Your task to perform on an android device: Open wifi settings Image 0: 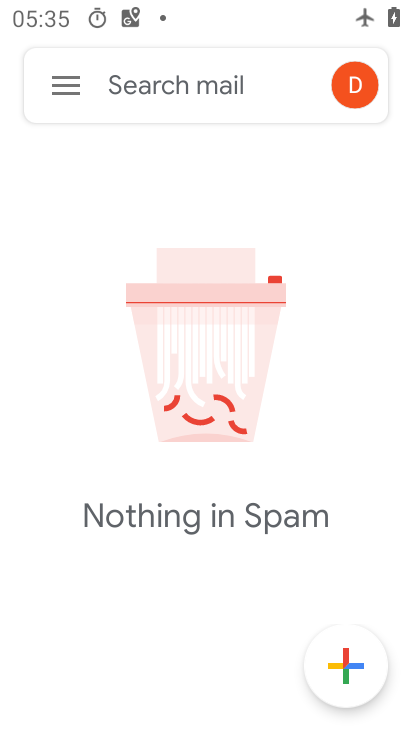
Step 0: press home button
Your task to perform on an android device: Open wifi settings Image 1: 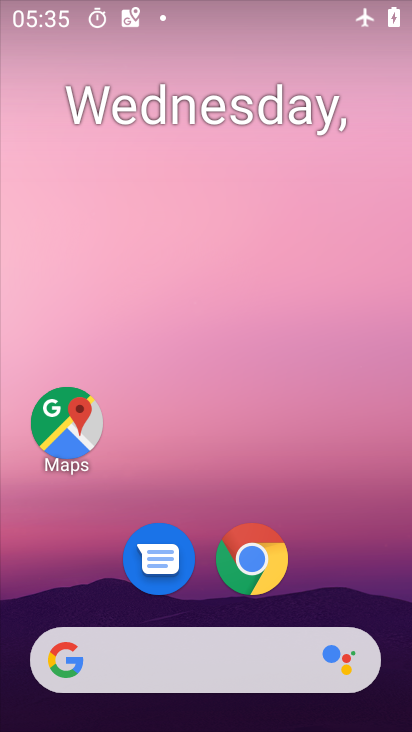
Step 1: drag from (339, 583) to (239, 110)
Your task to perform on an android device: Open wifi settings Image 2: 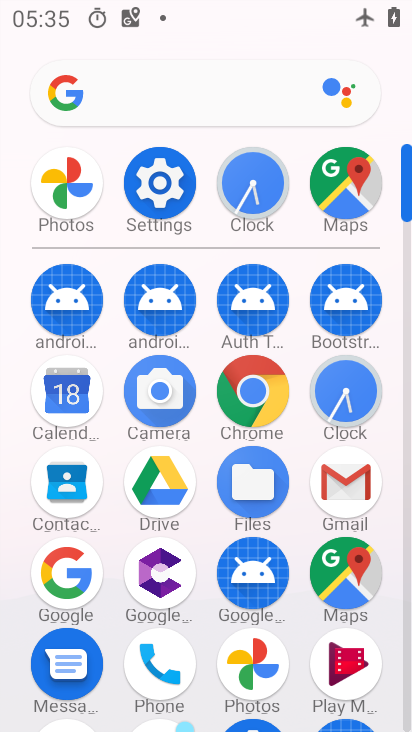
Step 2: click (153, 208)
Your task to perform on an android device: Open wifi settings Image 3: 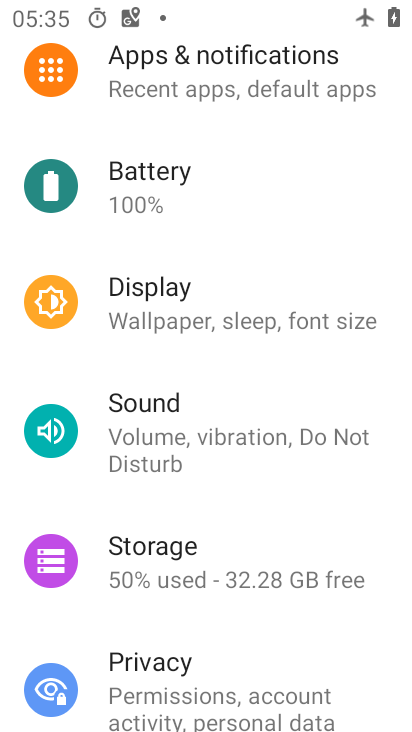
Step 3: drag from (226, 422) to (222, 727)
Your task to perform on an android device: Open wifi settings Image 4: 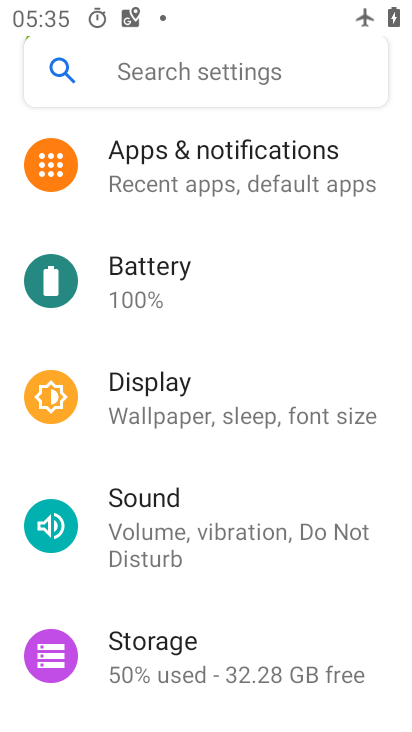
Step 4: drag from (221, 350) to (225, 608)
Your task to perform on an android device: Open wifi settings Image 5: 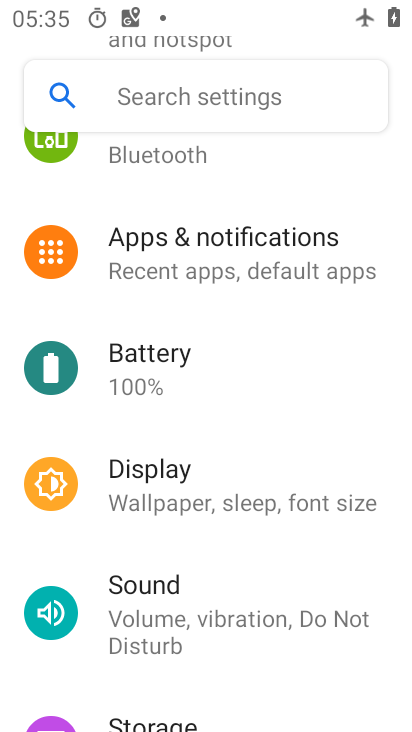
Step 5: drag from (221, 241) to (236, 649)
Your task to perform on an android device: Open wifi settings Image 6: 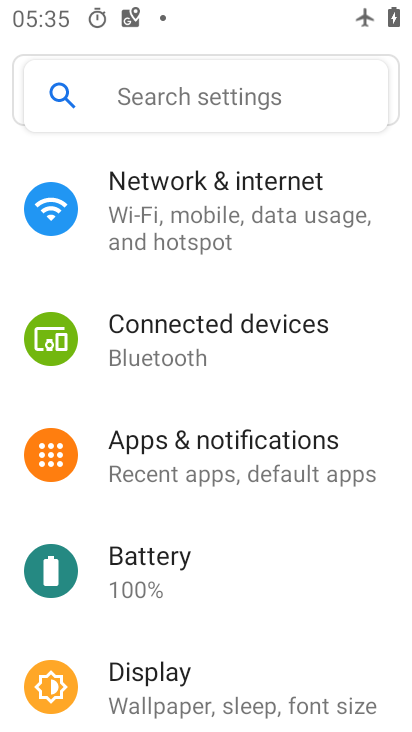
Step 6: click (229, 212)
Your task to perform on an android device: Open wifi settings Image 7: 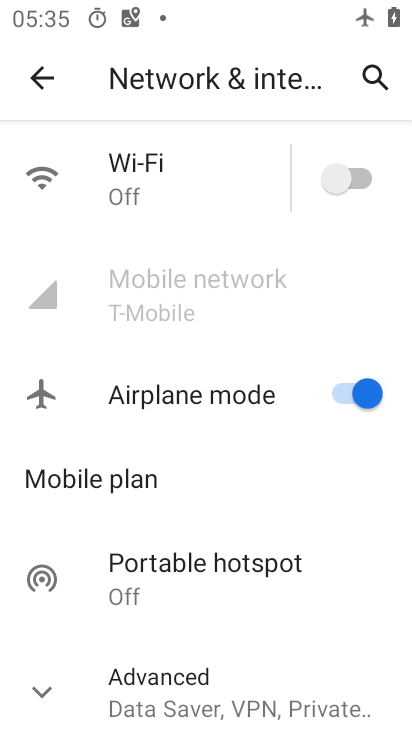
Step 7: click (219, 160)
Your task to perform on an android device: Open wifi settings Image 8: 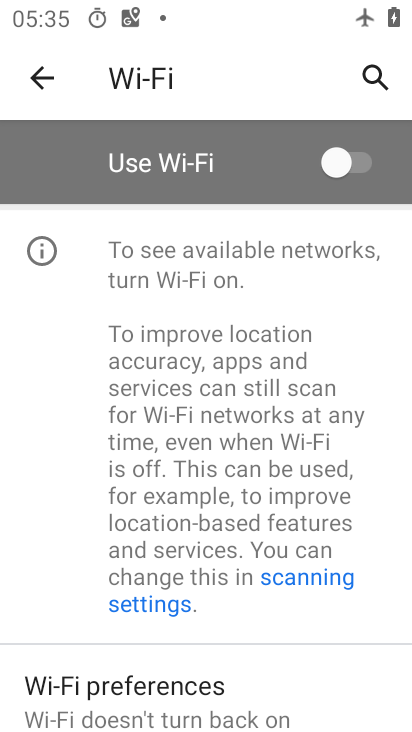
Step 8: task complete